Your task to perform on an android device: Open Yahoo.com Image 0: 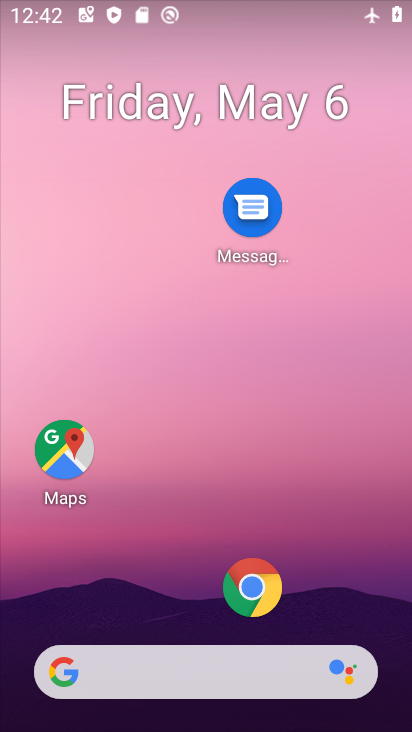
Step 0: click (263, 583)
Your task to perform on an android device: Open Yahoo.com Image 1: 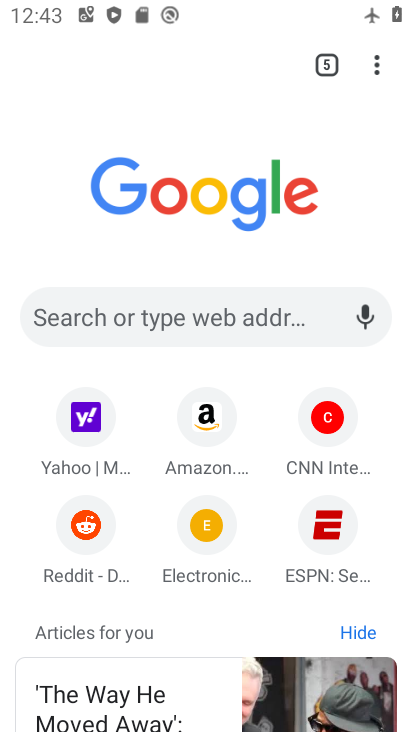
Step 1: click (88, 422)
Your task to perform on an android device: Open Yahoo.com Image 2: 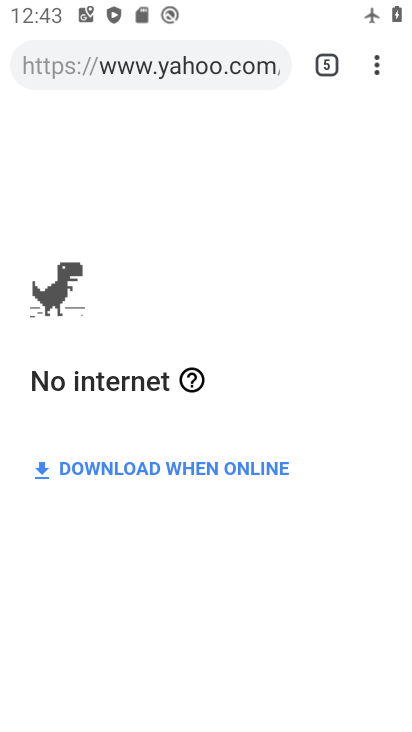
Step 2: task complete